Your task to perform on an android device: What's on my calendar tomorrow? Image 0: 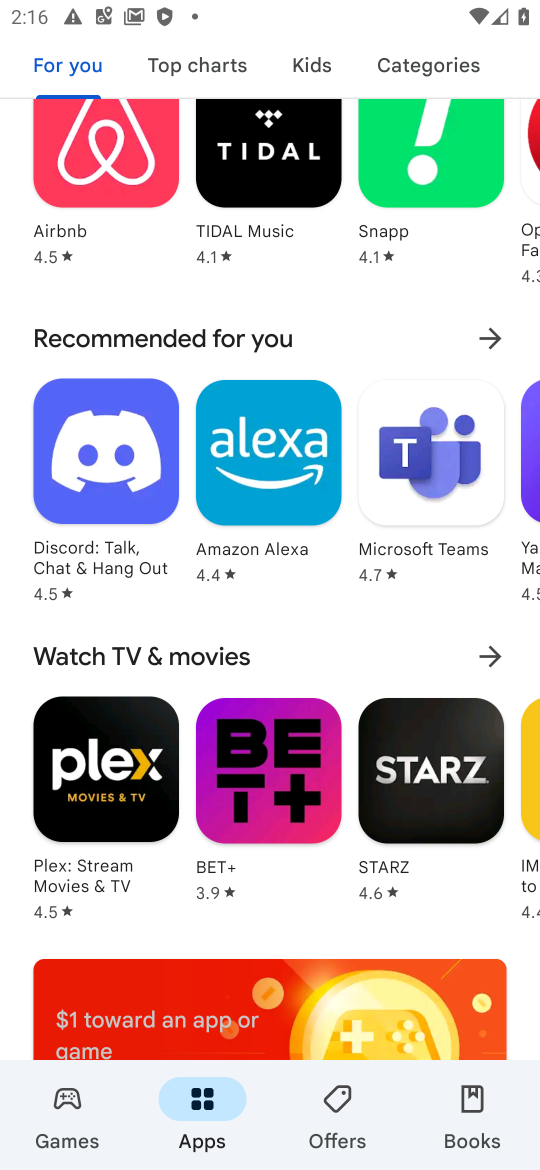
Step 0: press home button
Your task to perform on an android device: What's on my calendar tomorrow? Image 1: 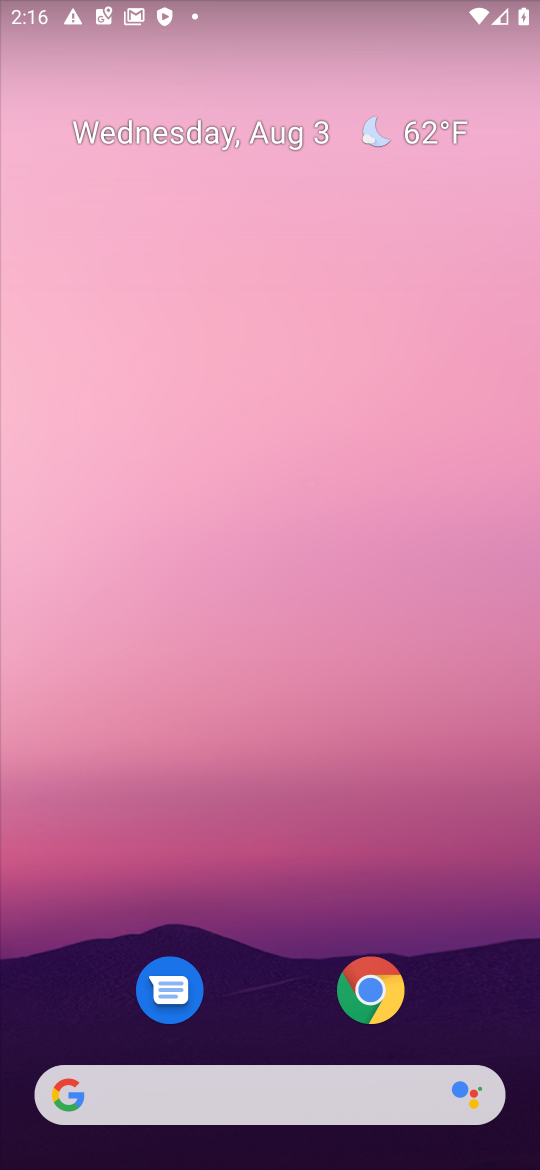
Step 1: drag from (337, 758) to (356, 394)
Your task to perform on an android device: What's on my calendar tomorrow? Image 2: 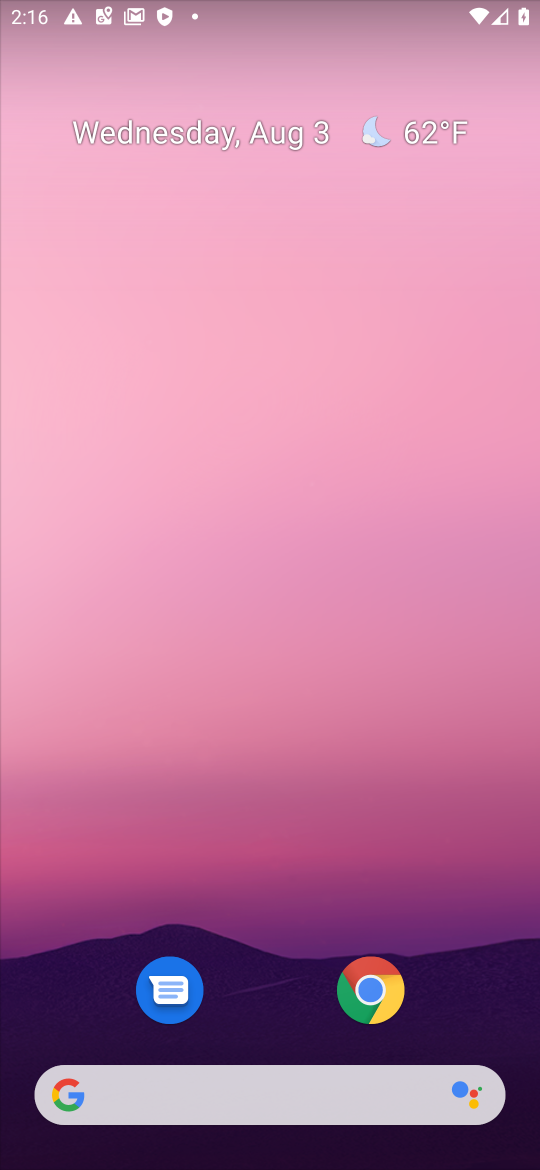
Step 2: drag from (193, 1070) to (279, 247)
Your task to perform on an android device: What's on my calendar tomorrow? Image 3: 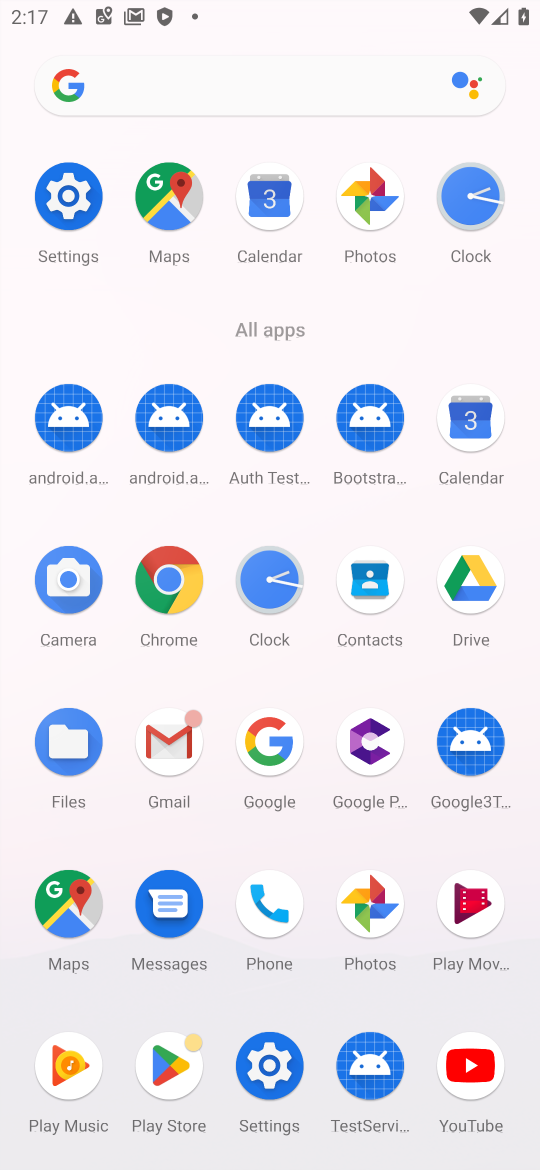
Step 3: click (470, 420)
Your task to perform on an android device: What's on my calendar tomorrow? Image 4: 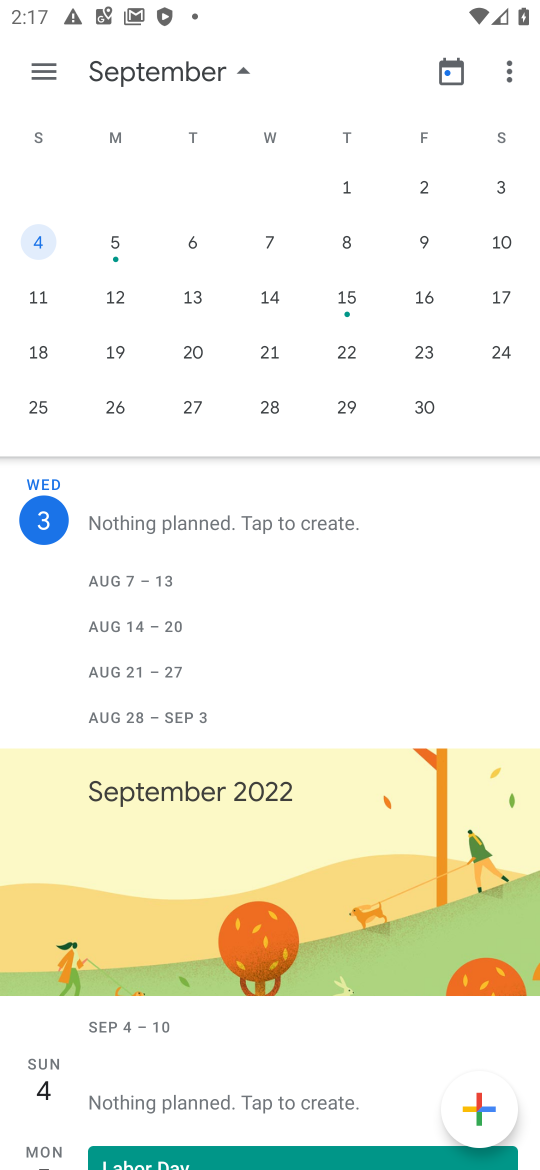
Step 4: click (44, 235)
Your task to perform on an android device: What's on my calendar tomorrow? Image 5: 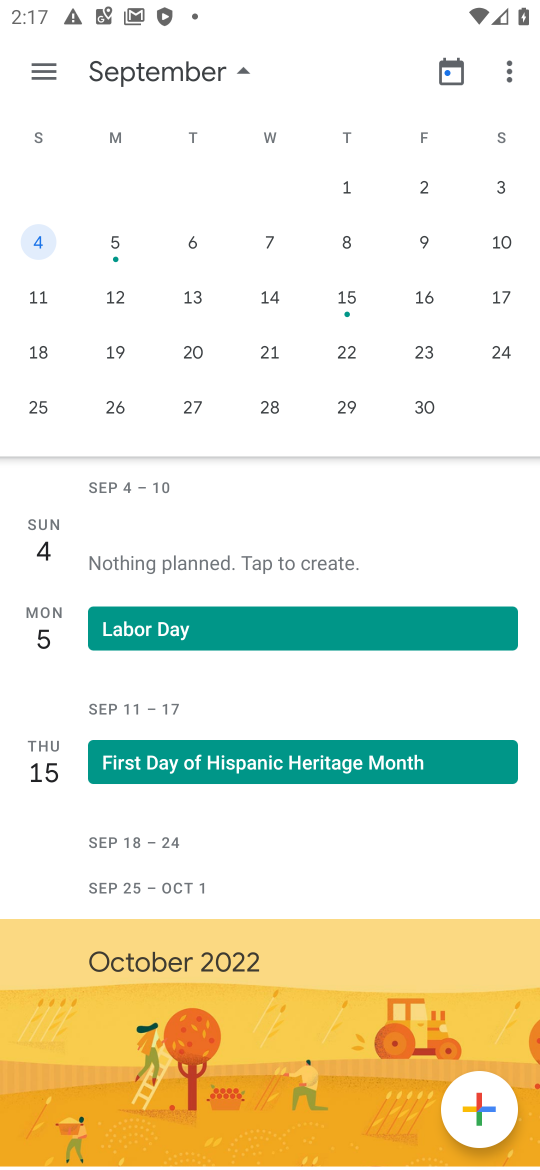
Step 5: click (487, 203)
Your task to perform on an android device: What's on my calendar tomorrow? Image 6: 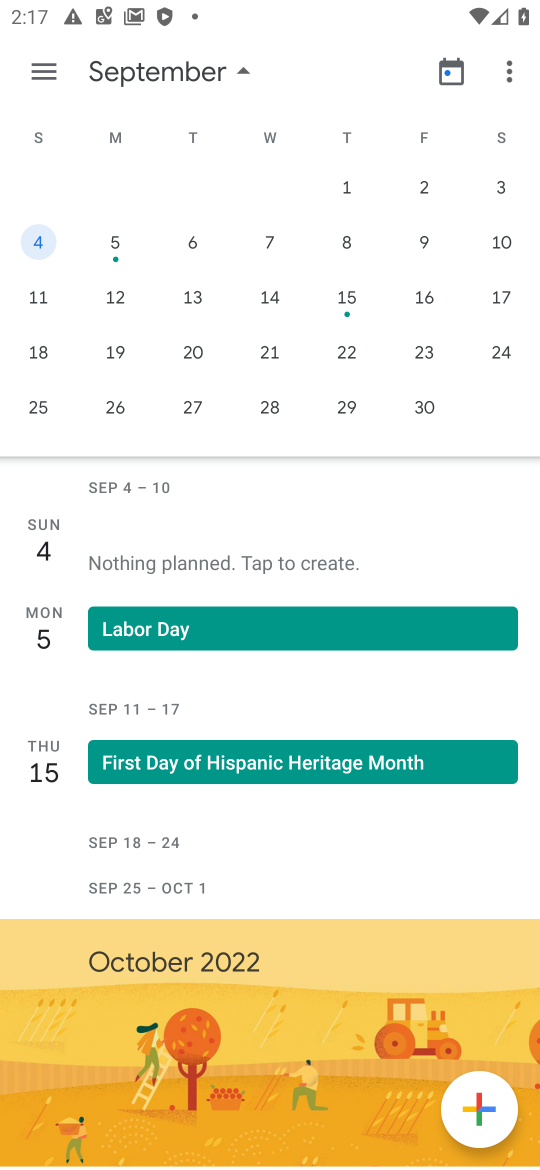
Step 6: drag from (13, 337) to (530, 268)
Your task to perform on an android device: What's on my calendar tomorrow? Image 7: 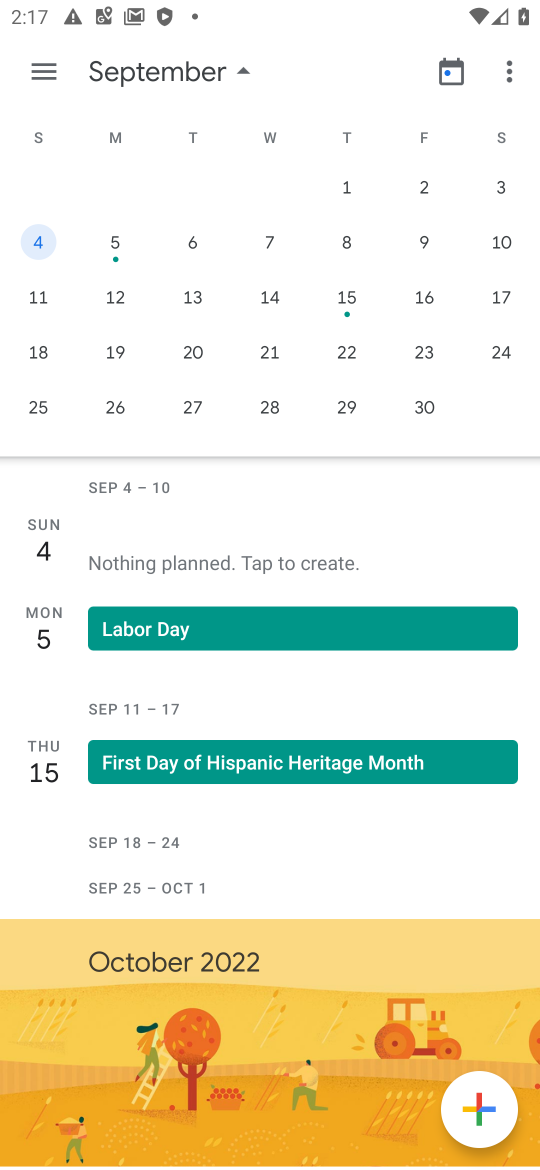
Step 7: drag from (16, 332) to (532, 344)
Your task to perform on an android device: What's on my calendar tomorrow? Image 8: 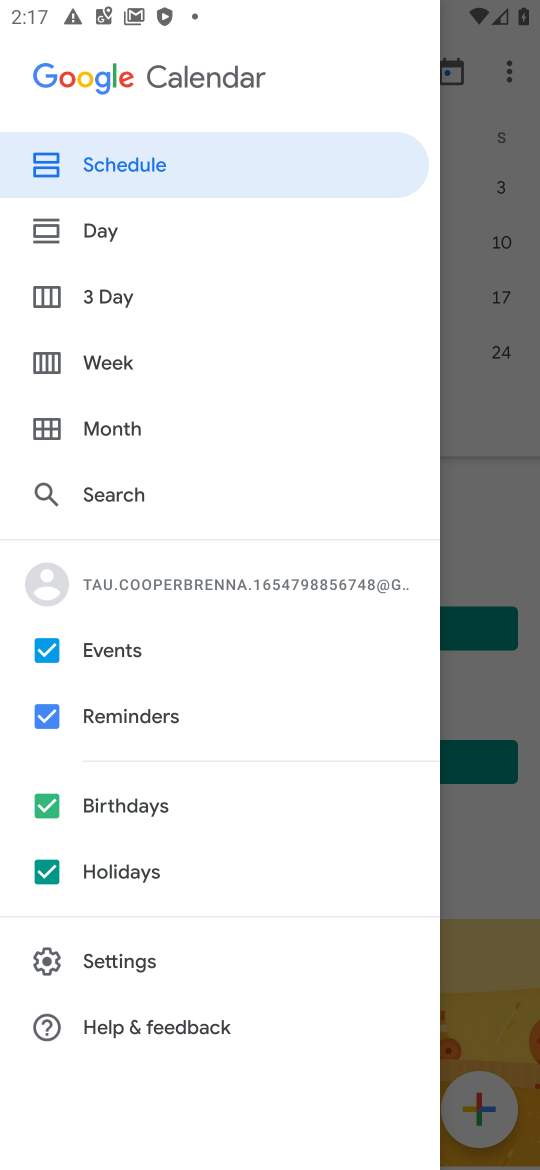
Step 8: click (478, 420)
Your task to perform on an android device: What's on my calendar tomorrow? Image 9: 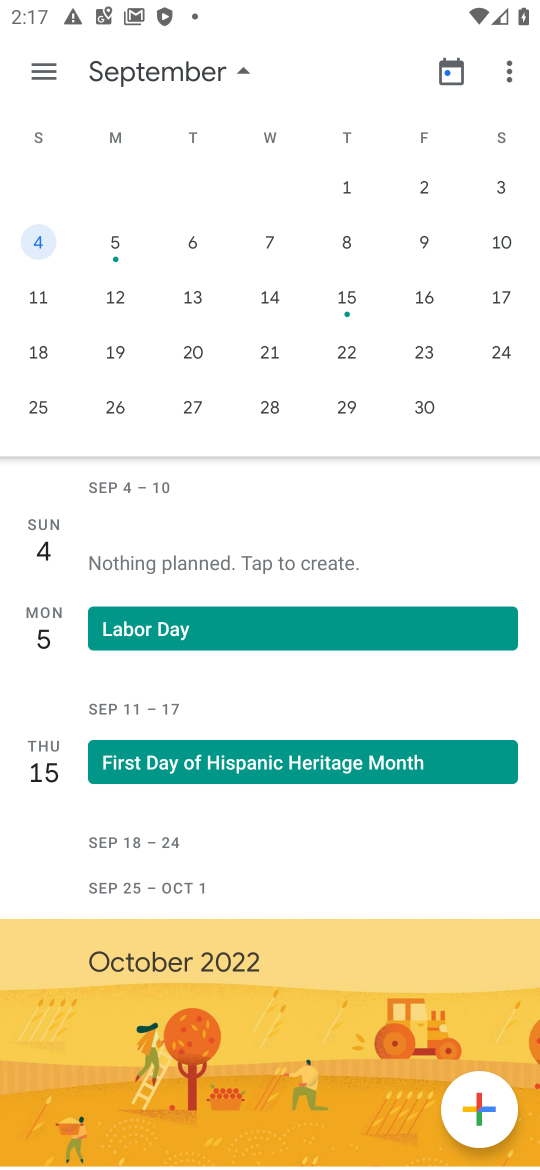
Step 9: drag from (171, 254) to (530, 254)
Your task to perform on an android device: What's on my calendar tomorrow? Image 10: 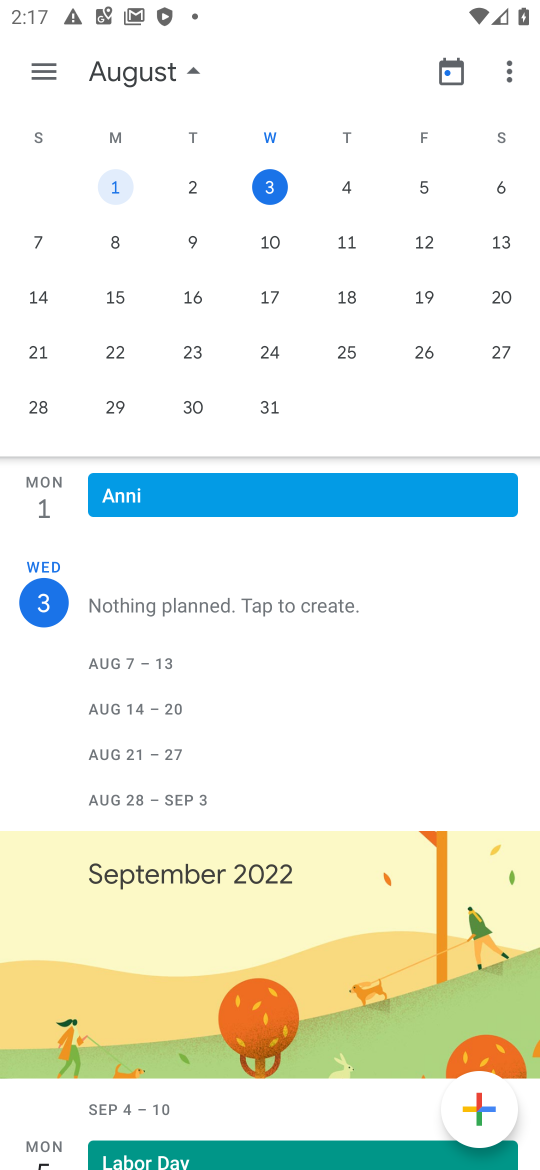
Step 10: click (350, 196)
Your task to perform on an android device: What's on my calendar tomorrow? Image 11: 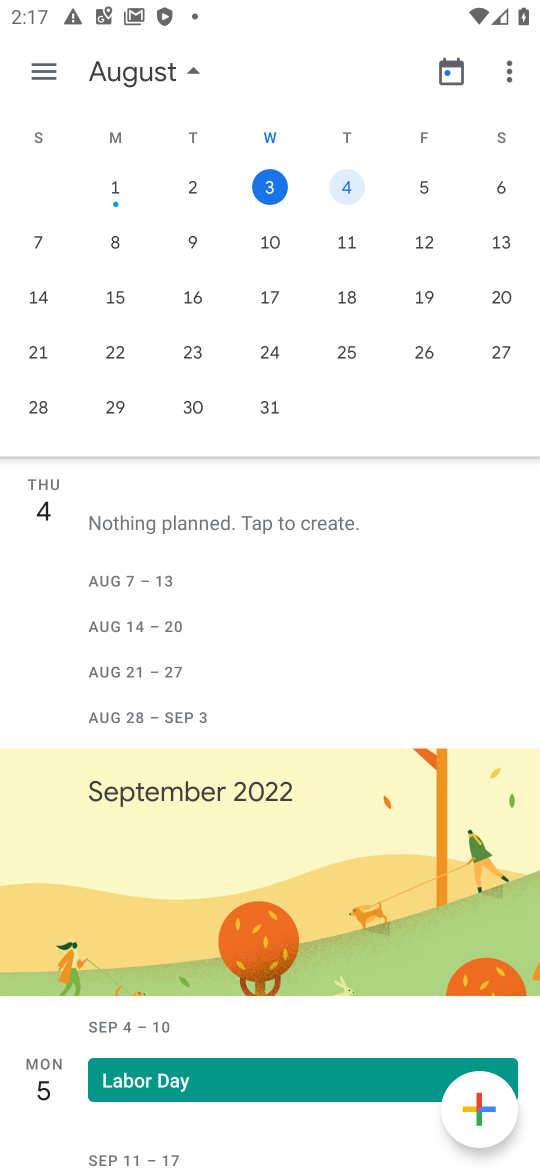
Step 11: task complete